Your task to perform on an android device: install app "WhatsApp Messenger" Image 0: 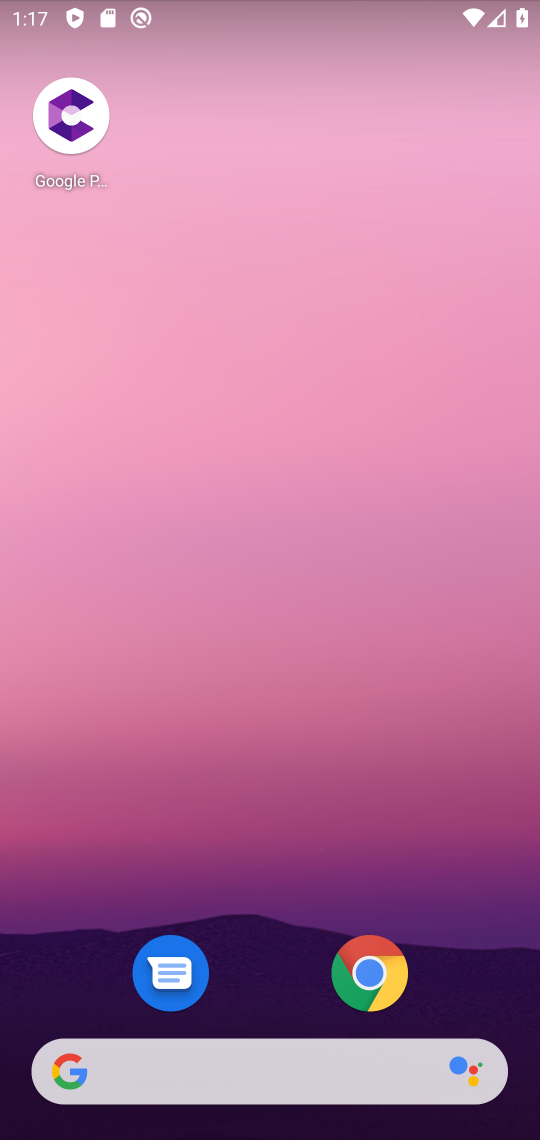
Step 0: drag from (283, 1031) to (272, 218)
Your task to perform on an android device: install app "WhatsApp Messenger" Image 1: 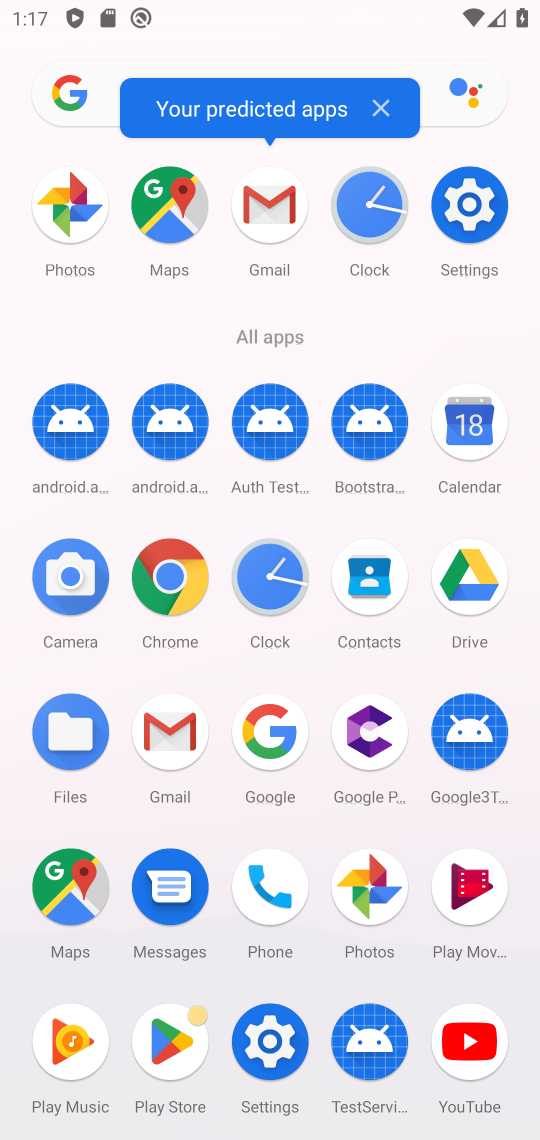
Step 1: click (193, 1038)
Your task to perform on an android device: install app "WhatsApp Messenger" Image 2: 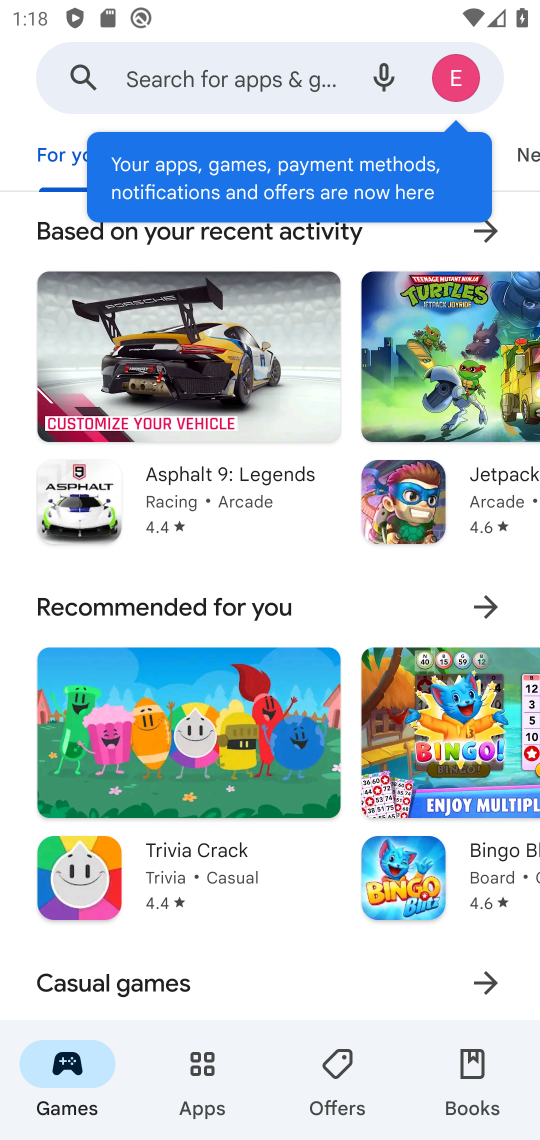
Step 2: click (282, 92)
Your task to perform on an android device: install app "WhatsApp Messenger" Image 3: 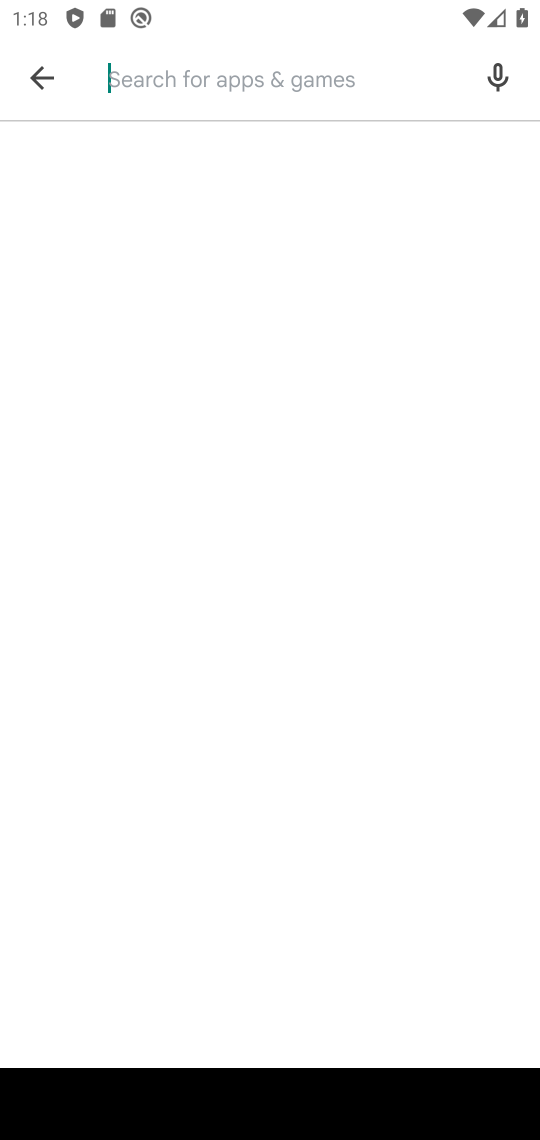
Step 3: type "whatsapp"
Your task to perform on an android device: install app "WhatsApp Messenger" Image 4: 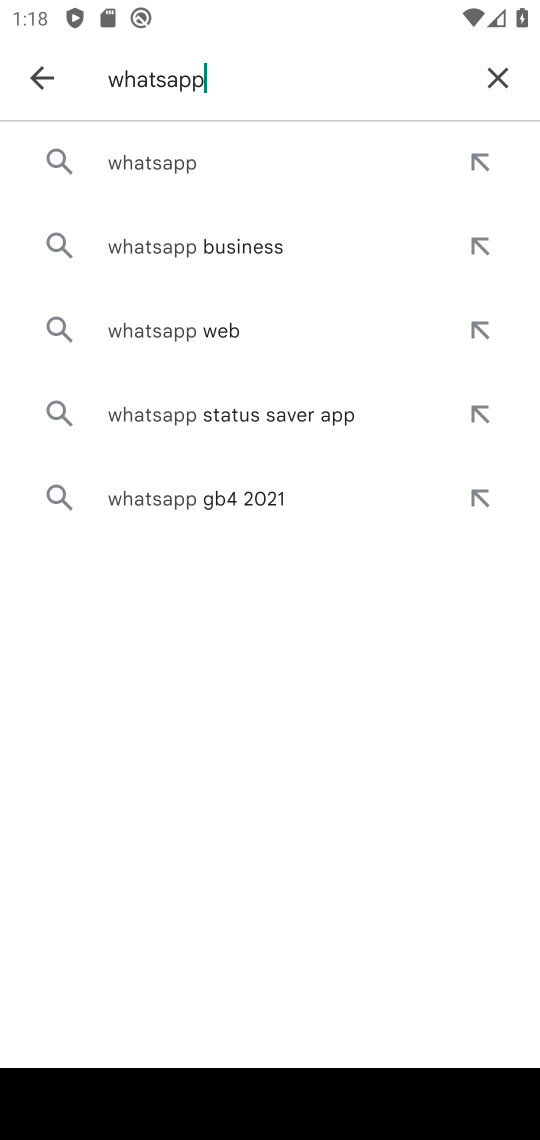
Step 4: click (265, 160)
Your task to perform on an android device: install app "WhatsApp Messenger" Image 5: 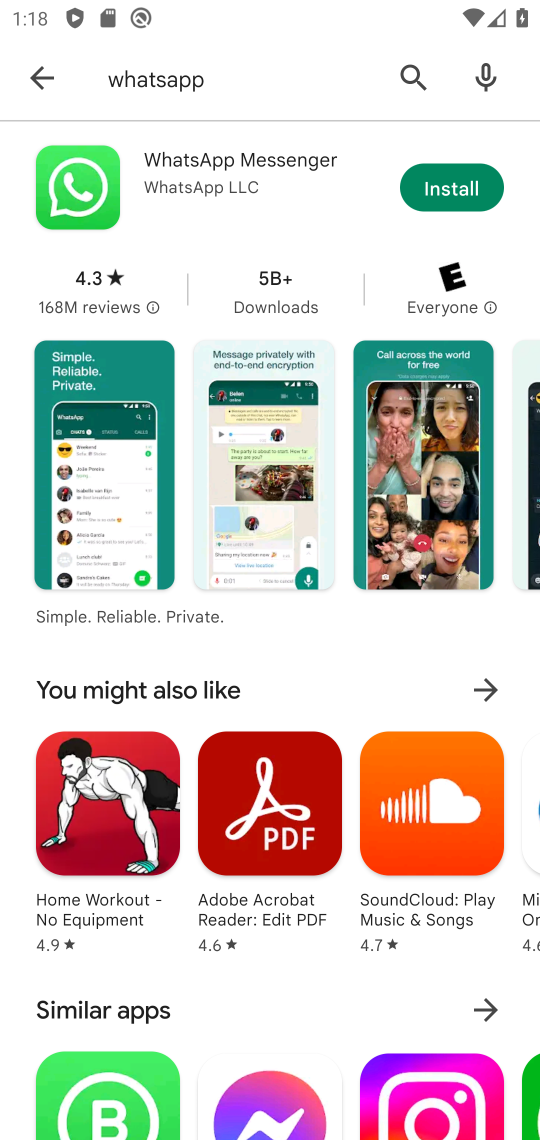
Step 5: click (424, 184)
Your task to perform on an android device: install app "WhatsApp Messenger" Image 6: 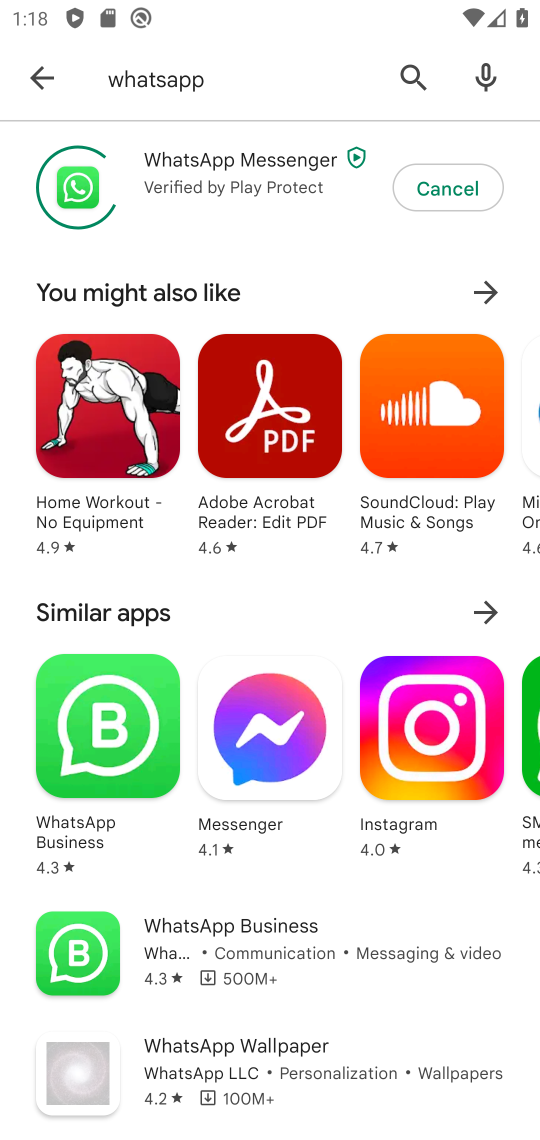
Step 6: task complete